Your task to perform on an android device: install app "Venmo" Image 0: 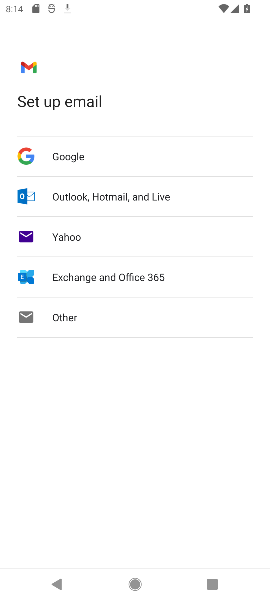
Step 0: press home button
Your task to perform on an android device: install app "Venmo" Image 1: 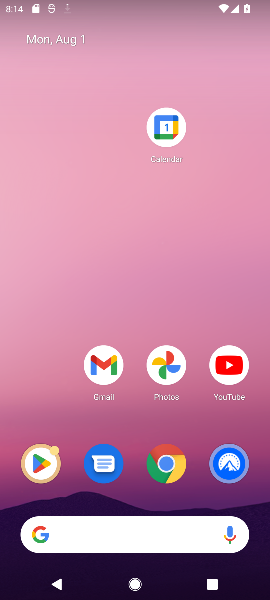
Step 1: click (24, 462)
Your task to perform on an android device: install app "Venmo" Image 2: 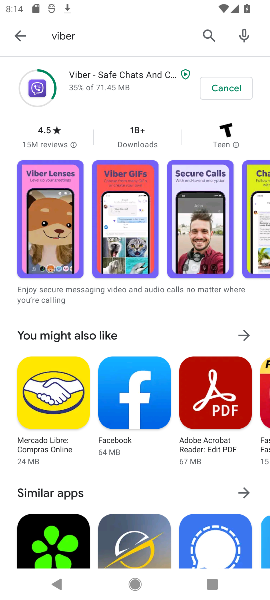
Step 2: click (216, 29)
Your task to perform on an android device: install app "Venmo" Image 3: 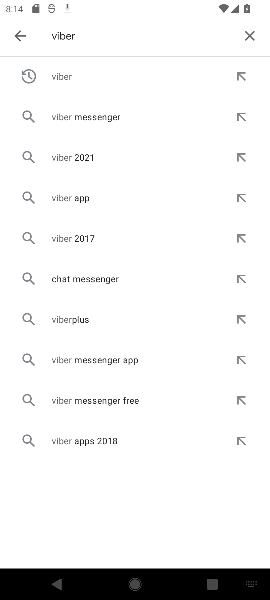
Step 3: click (258, 39)
Your task to perform on an android device: install app "Venmo" Image 4: 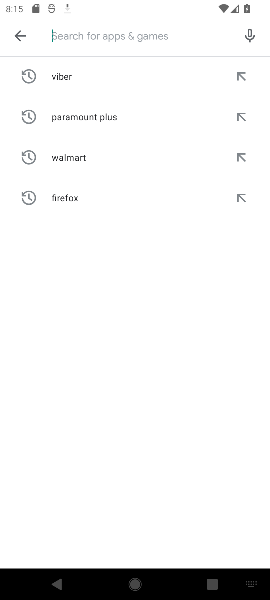
Step 4: type "venmo"
Your task to perform on an android device: install app "Venmo" Image 5: 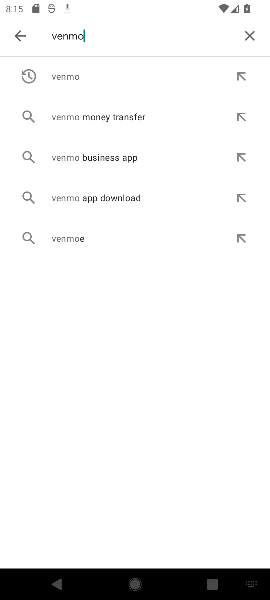
Step 5: click (200, 85)
Your task to perform on an android device: install app "Venmo" Image 6: 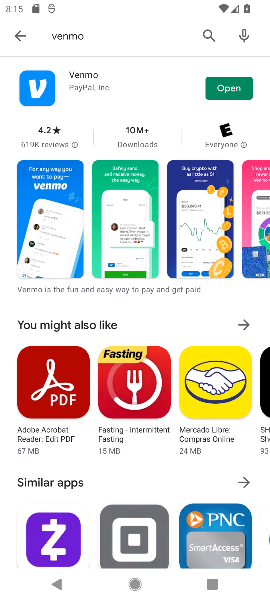
Step 6: click (226, 81)
Your task to perform on an android device: install app "Venmo" Image 7: 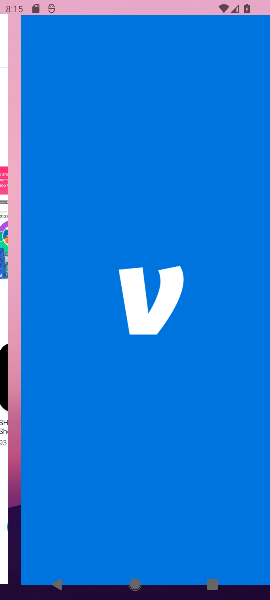
Step 7: task complete